Your task to perform on an android device: visit the assistant section in the google photos Image 0: 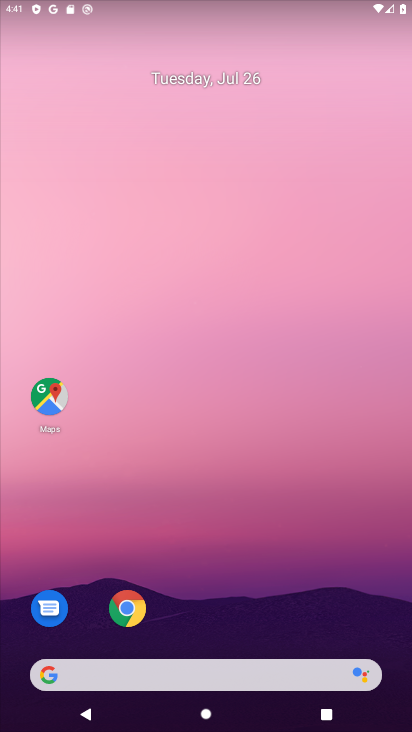
Step 0: drag from (195, 656) to (150, 276)
Your task to perform on an android device: visit the assistant section in the google photos Image 1: 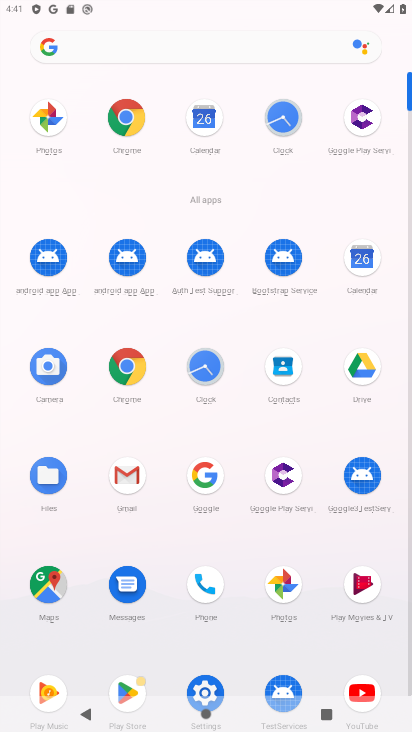
Step 1: click (287, 588)
Your task to perform on an android device: visit the assistant section in the google photos Image 2: 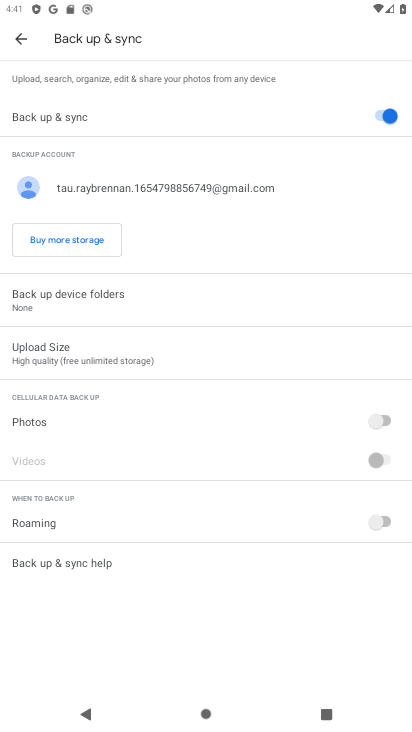
Step 2: click (25, 52)
Your task to perform on an android device: visit the assistant section in the google photos Image 3: 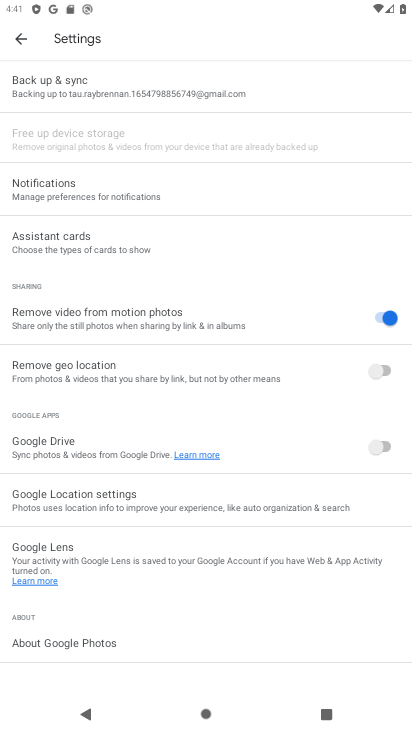
Step 3: click (25, 52)
Your task to perform on an android device: visit the assistant section in the google photos Image 4: 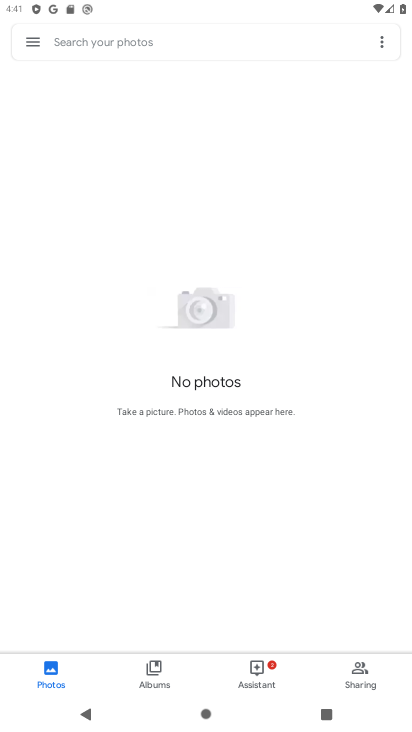
Step 4: click (257, 676)
Your task to perform on an android device: visit the assistant section in the google photos Image 5: 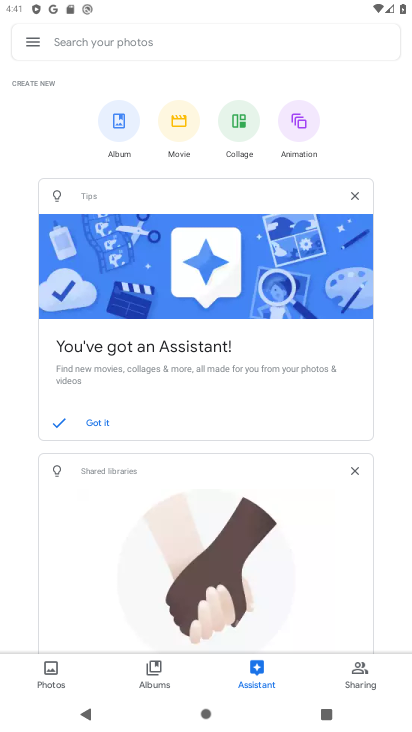
Step 5: task complete